Your task to perform on an android device: Do I have any events tomorrow? Image 0: 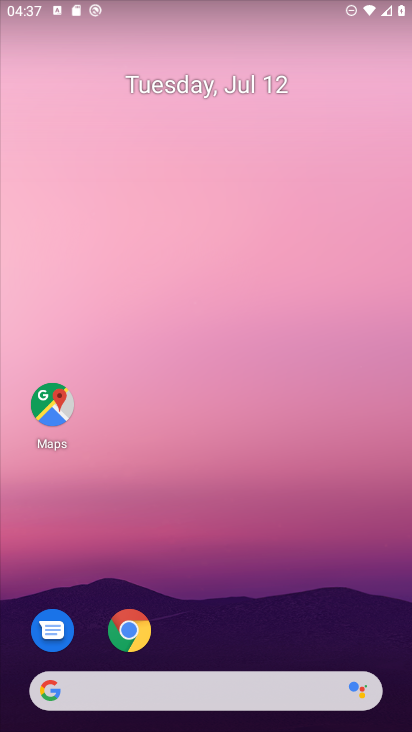
Step 0: drag from (383, 623) to (322, 75)
Your task to perform on an android device: Do I have any events tomorrow? Image 1: 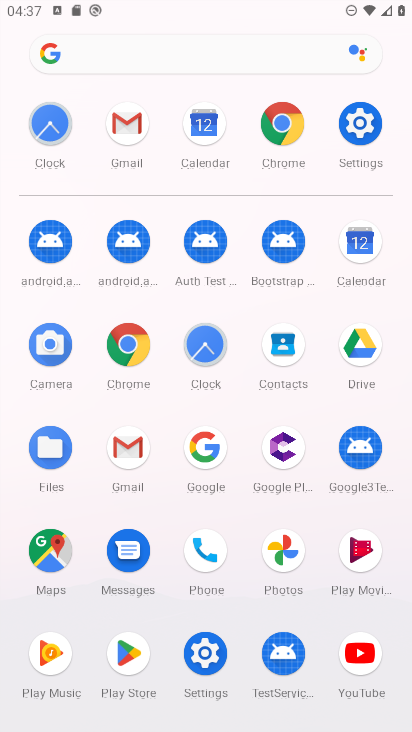
Step 1: click (357, 240)
Your task to perform on an android device: Do I have any events tomorrow? Image 2: 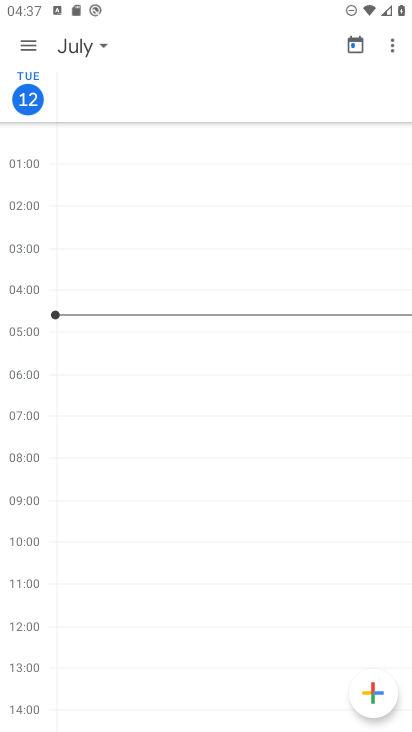
Step 2: click (96, 48)
Your task to perform on an android device: Do I have any events tomorrow? Image 3: 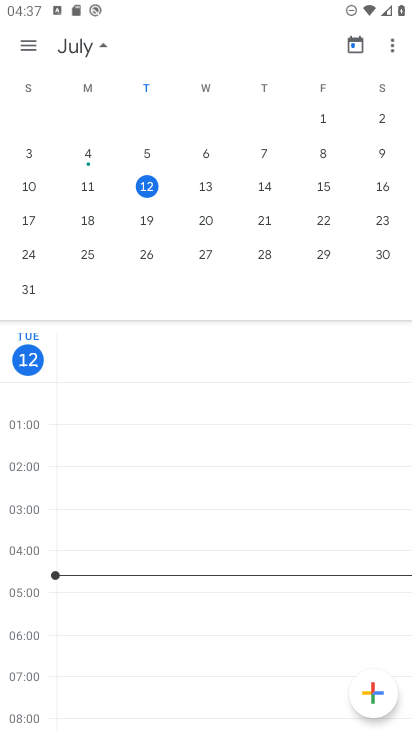
Step 3: click (205, 183)
Your task to perform on an android device: Do I have any events tomorrow? Image 4: 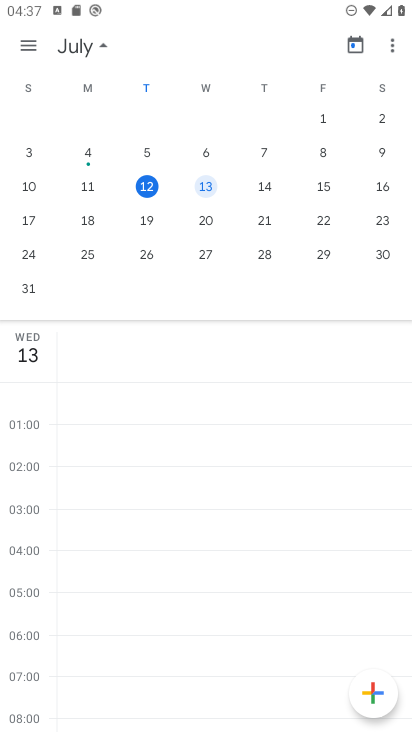
Step 4: task complete